Your task to perform on an android device: check the backup settings in the google photos Image 0: 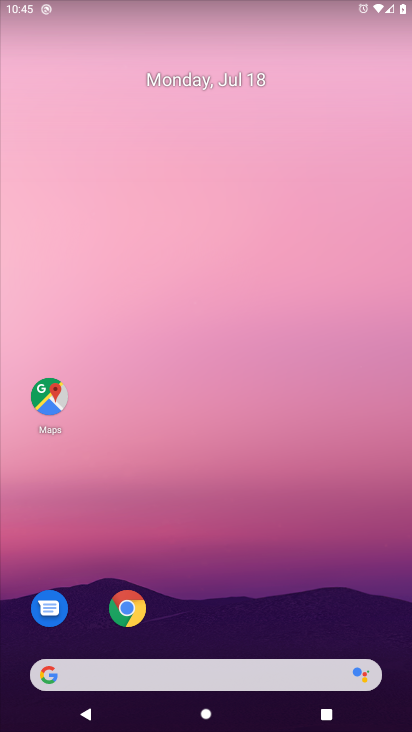
Step 0: drag from (49, 708) to (169, 266)
Your task to perform on an android device: check the backup settings in the google photos Image 1: 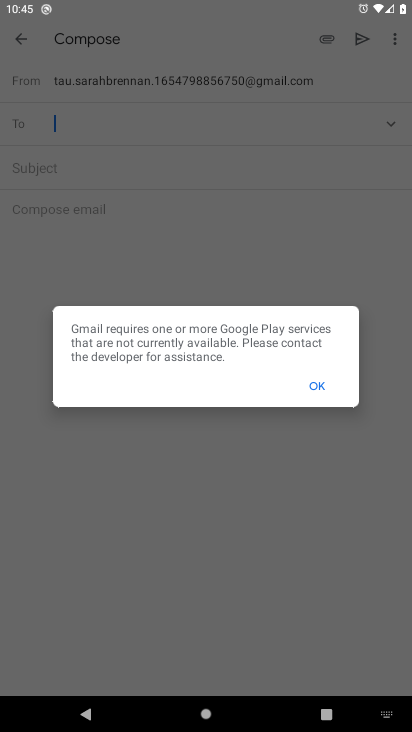
Step 1: click (320, 381)
Your task to perform on an android device: check the backup settings in the google photos Image 2: 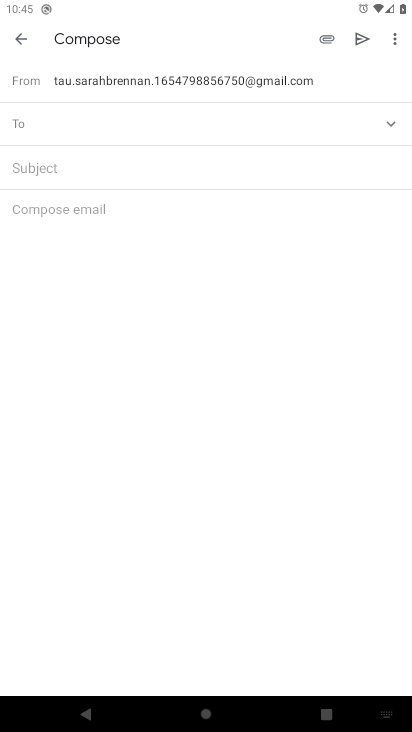
Step 2: press home button
Your task to perform on an android device: check the backup settings in the google photos Image 3: 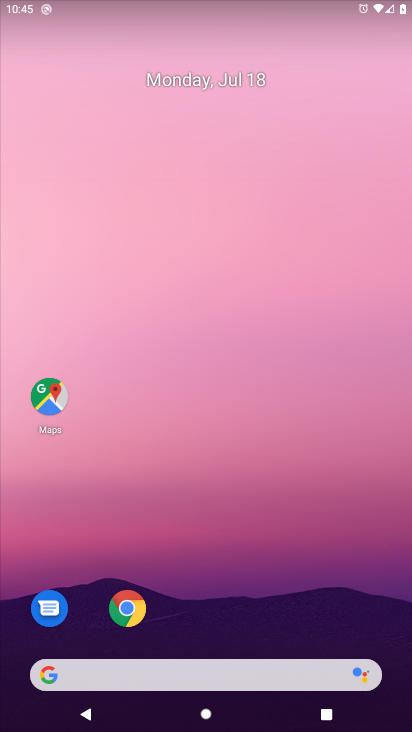
Step 3: drag from (57, 657) to (178, 213)
Your task to perform on an android device: check the backup settings in the google photos Image 4: 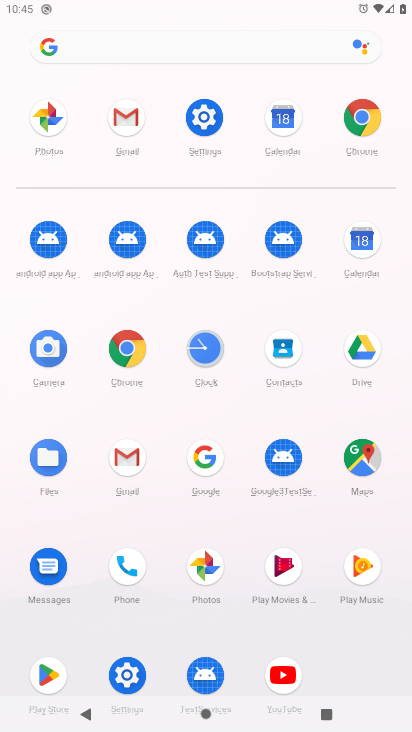
Step 4: click (202, 575)
Your task to perform on an android device: check the backup settings in the google photos Image 5: 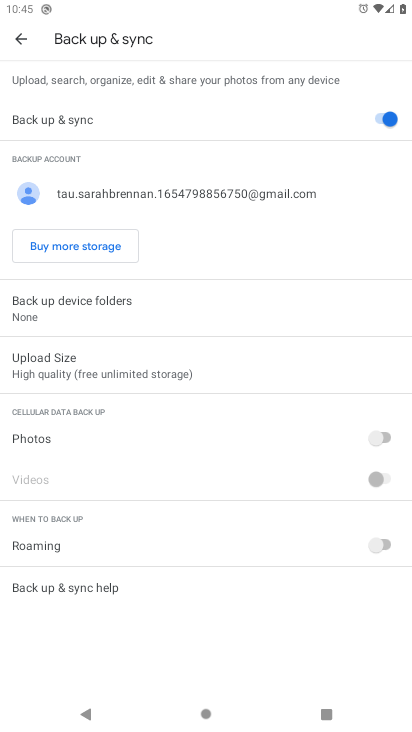
Step 5: task complete